Your task to perform on an android device: change the clock display to analog Image 0: 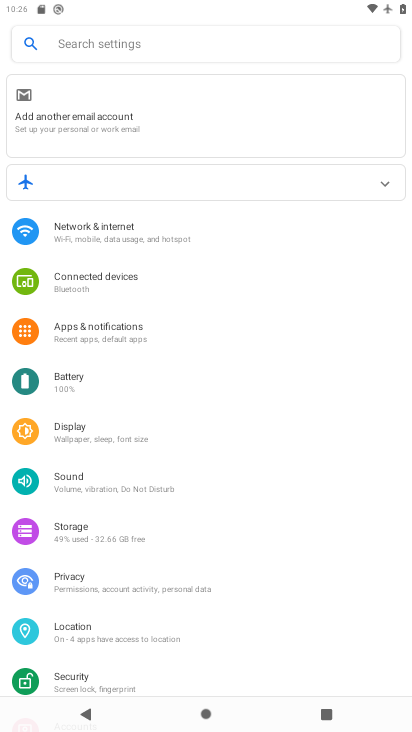
Step 0: press home button
Your task to perform on an android device: change the clock display to analog Image 1: 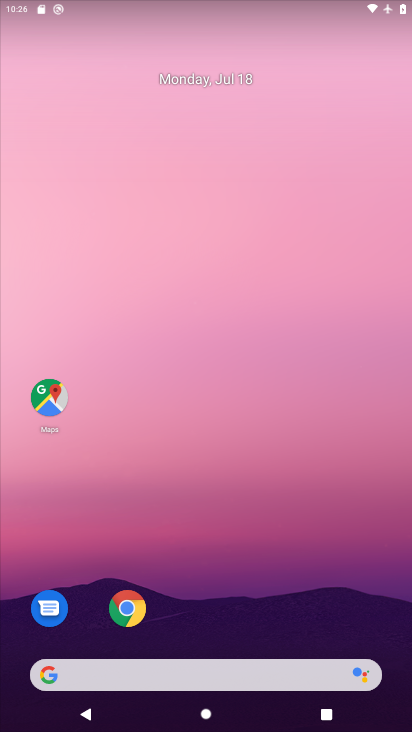
Step 1: drag from (193, 645) to (185, 139)
Your task to perform on an android device: change the clock display to analog Image 2: 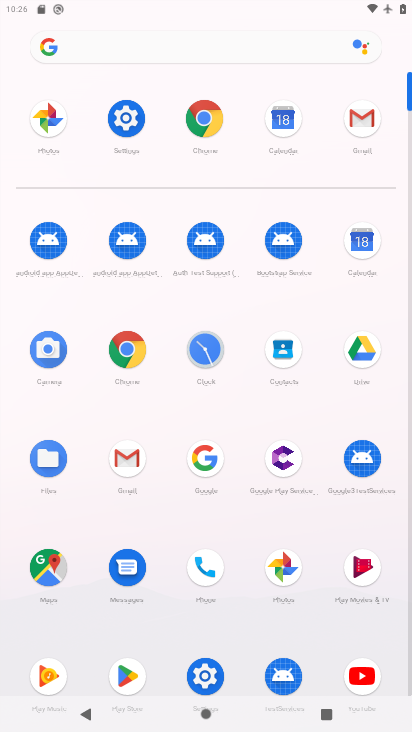
Step 2: click (199, 355)
Your task to perform on an android device: change the clock display to analog Image 3: 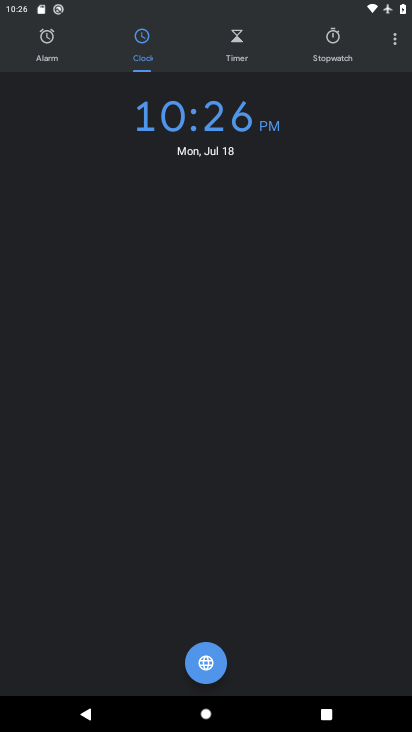
Step 3: click (393, 44)
Your task to perform on an android device: change the clock display to analog Image 4: 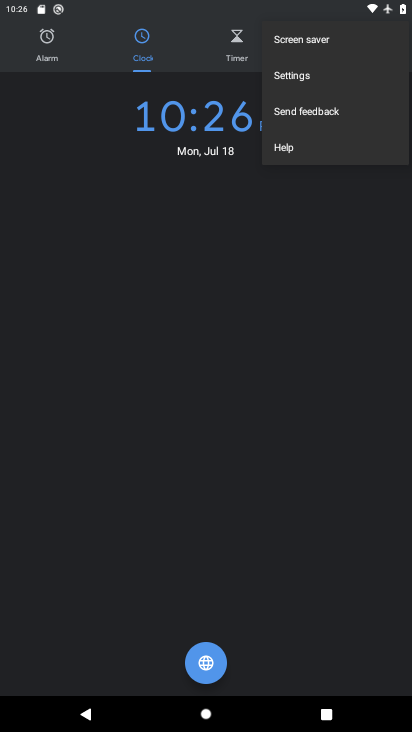
Step 4: click (311, 71)
Your task to perform on an android device: change the clock display to analog Image 5: 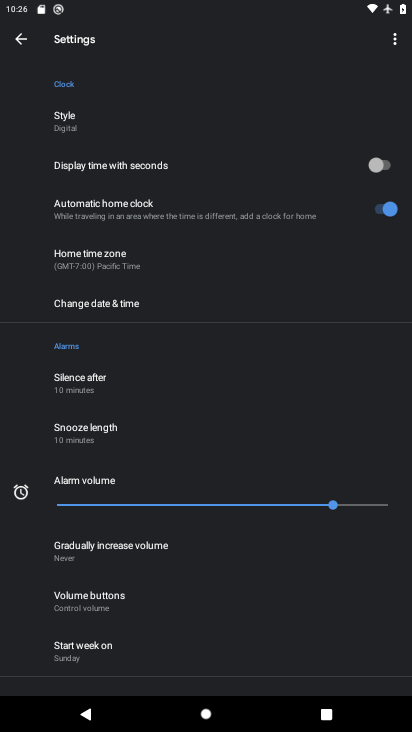
Step 5: click (73, 127)
Your task to perform on an android device: change the clock display to analog Image 6: 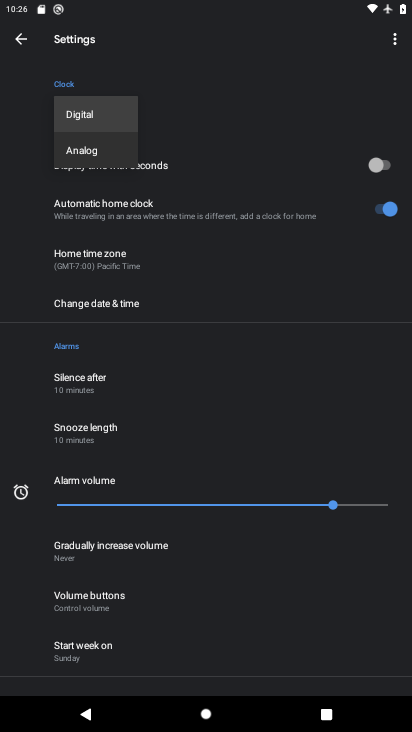
Step 6: click (88, 147)
Your task to perform on an android device: change the clock display to analog Image 7: 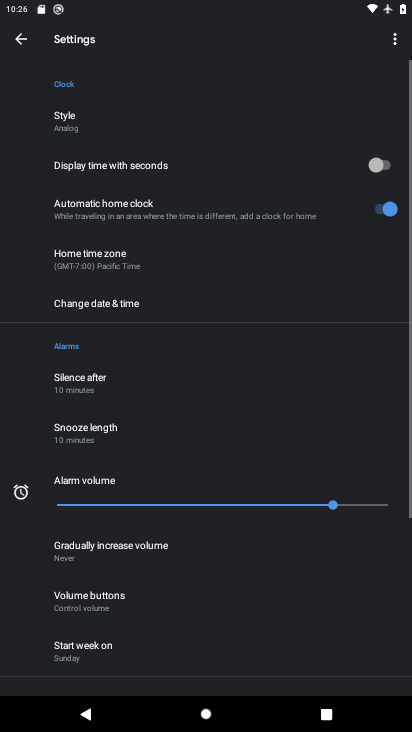
Step 7: task complete